Your task to perform on an android device: turn pop-ups on in chrome Image 0: 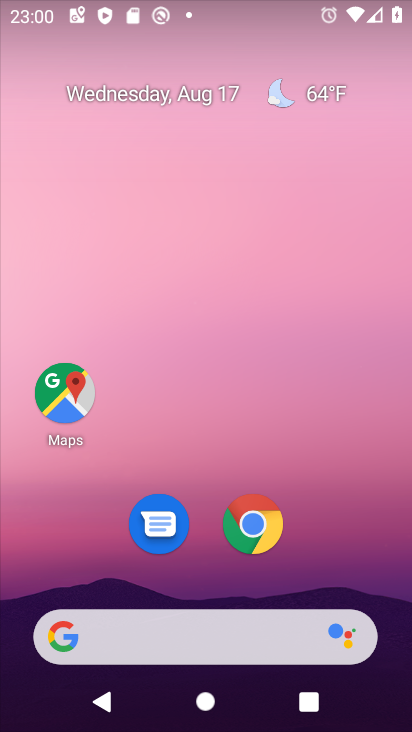
Step 0: click (259, 520)
Your task to perform on an android device: turn pop-ups on in chrome Image 1: 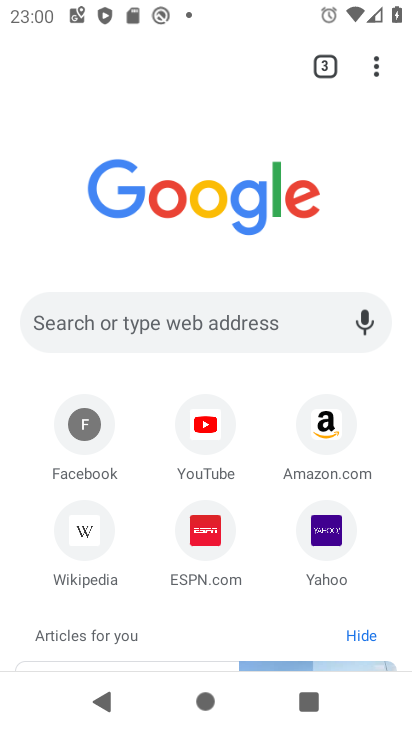
Step 1: click (370, 69)
Your task to perform on an android device: turn pop-ups on in chrome Image 2: 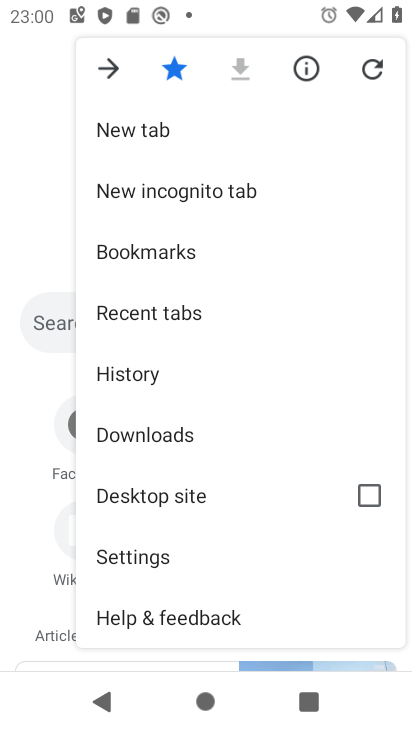
Step 2: click (166, 563)
Your task to perform on an android device: turn pop-ups on in chrome Image 3: 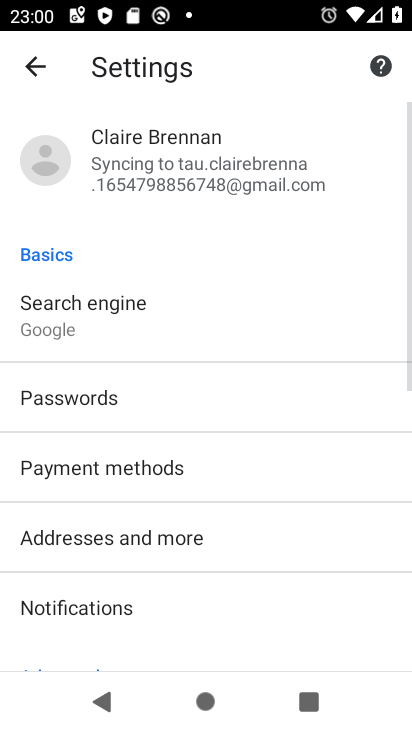
Step 3: drag from (174, 509) to (237, 49)
Your task to perform on an android device: turn pop-ups on in chrome Image 4: 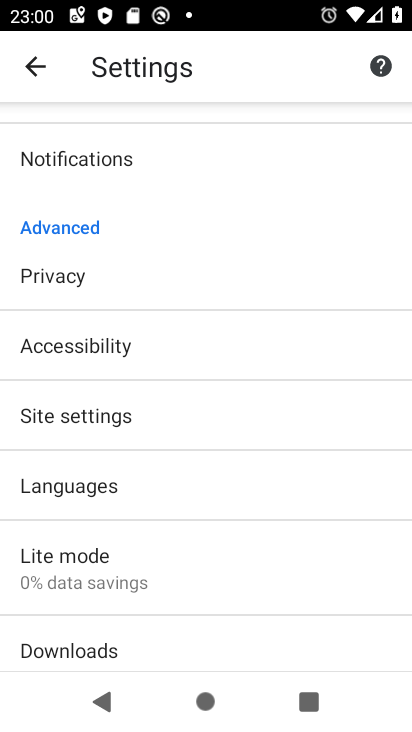
Step 4: click (121, 413)
Your task to perform on an android device: turn pop-ups on in chrome Image 5: 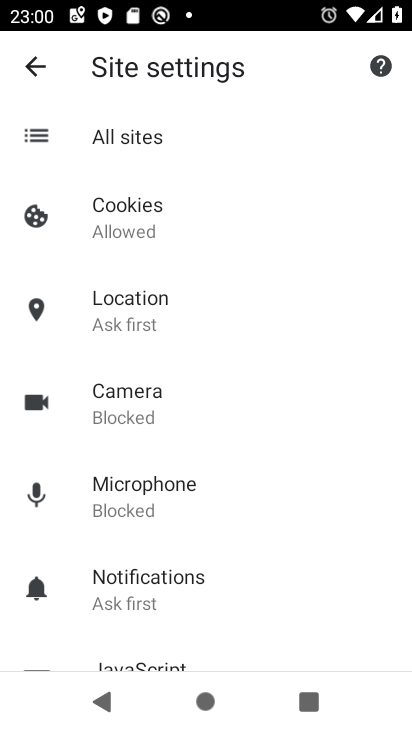
Step 5: drag from (237, 486) to (293, 59)
Your task to perform on an android device: turn pop-ups on in chrome Image 6: 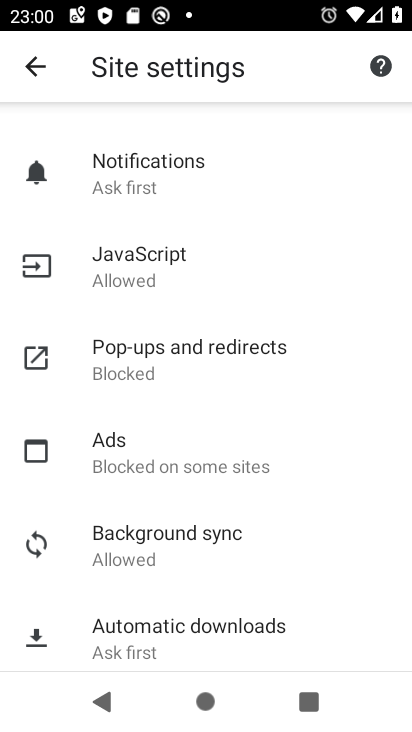
Step 6: click (259, 361)
Your task to perform on an android device: turn pop-ups on in chrome Image 7: 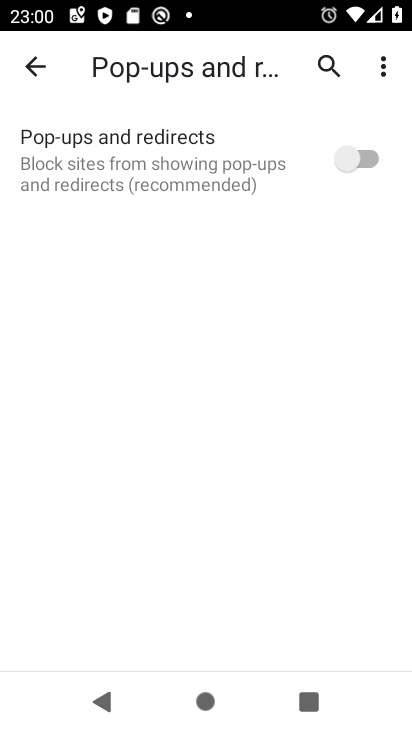
Step 7: click (354, 149)
Your task to perform on an android device: turn pop-ups on in chrome Image 8: 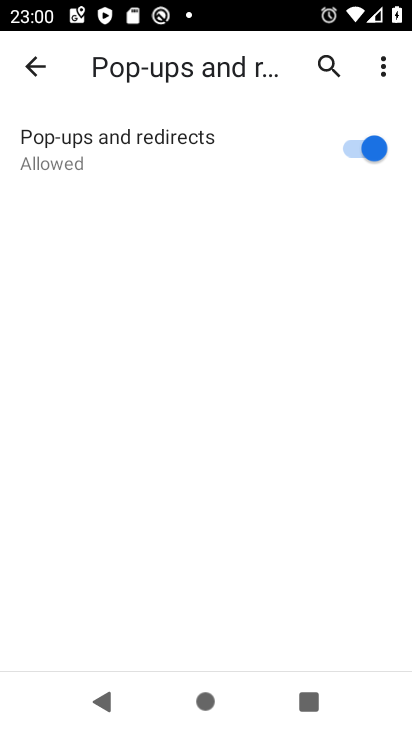
Step 8: task complete